Your task to perform on an android device: turn off wifi Image 0: 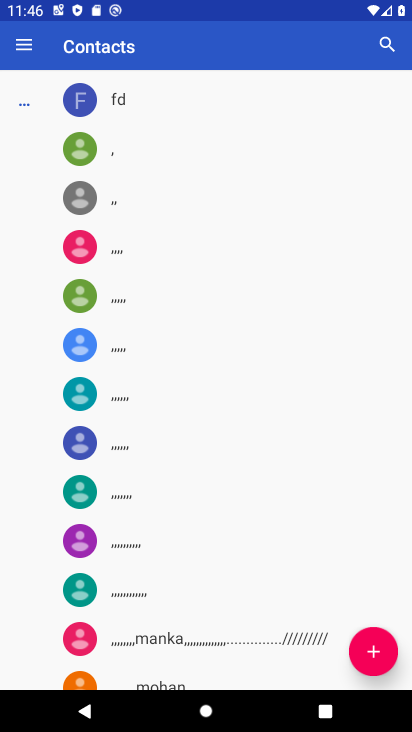
Step 0: press home button
Your task to perform on an android device: turn off wifi Image 1: 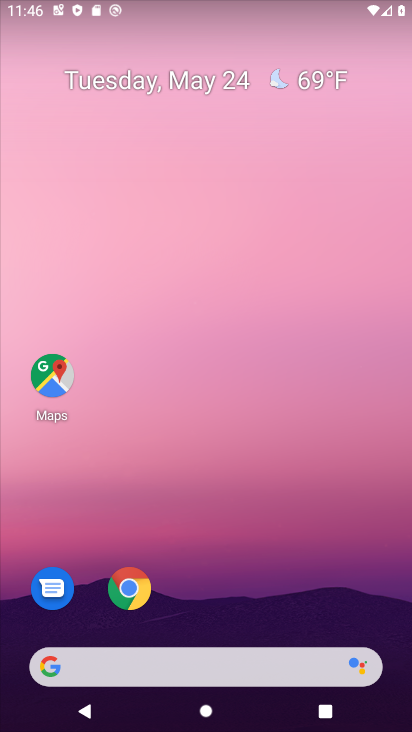
Step 1: drag from (209, 8) to (213, 536)
Your task to perform on an android device: turn off wifi Image 2: 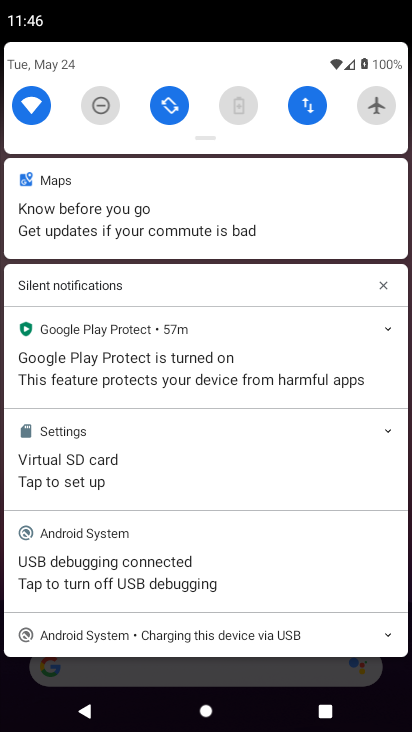
Step 2: click (30, 101)
Your task to perform on an android device: turn off wifi Image 3: 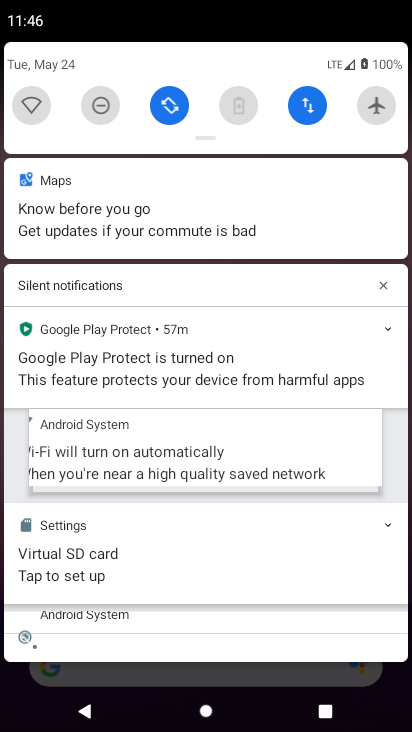
Step 3: task complete